Your task to perform on an android device: Search for sushi restaurants on Maps Image 0: 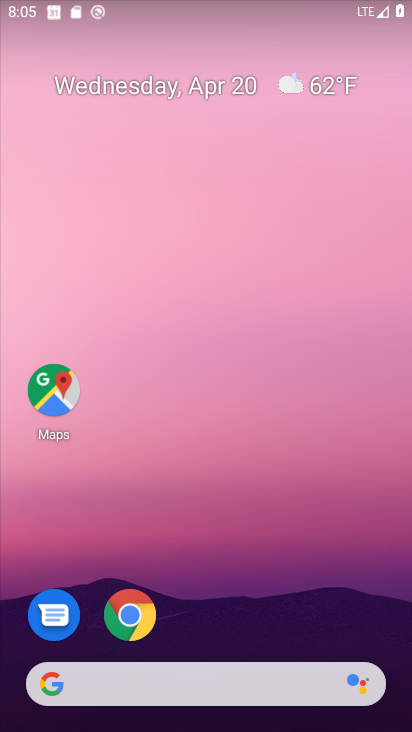
Step 0: click (57, 385)
Your task to perform on an android device: Search for sushi restaurants on Maps Image 1: 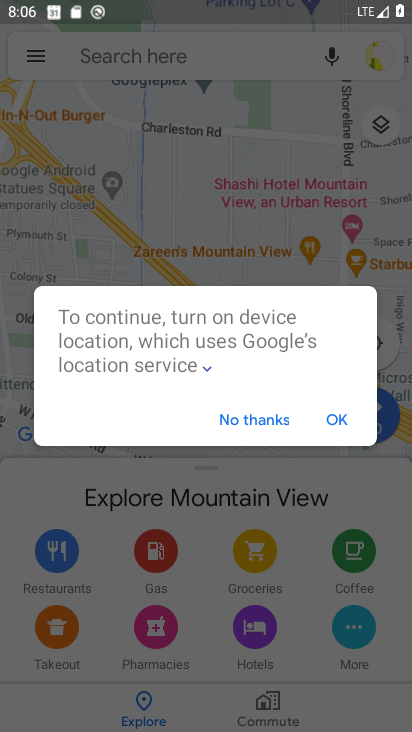
Step 1: click (246, 416)
Your task to perform on an android device: Search for sushi restaurants on Maps Image 2: 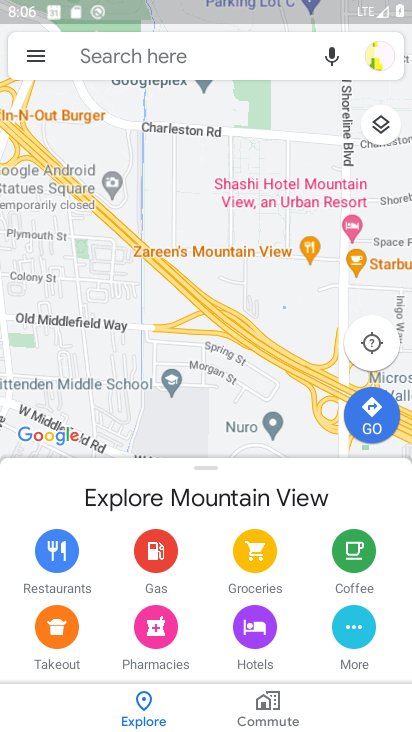
Step 2: click (160, 56)
Your task to perform on an android device: Search for sushi restaurants on Maps Image 3: 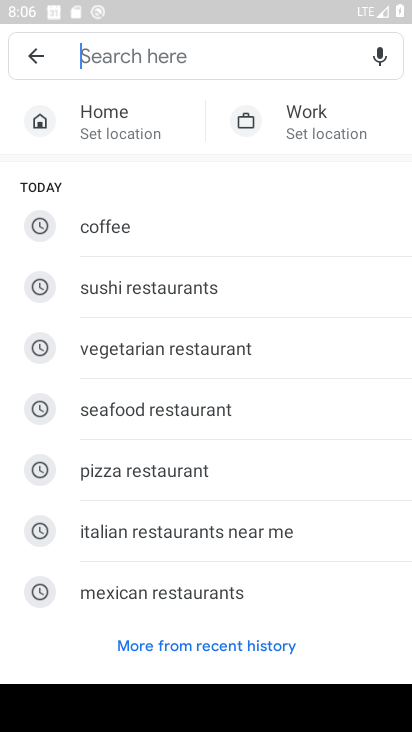
Step 3: type "sushi restaurant"
Your task to perform on an android device: Search for sushi restaurants on Maps Image 4: 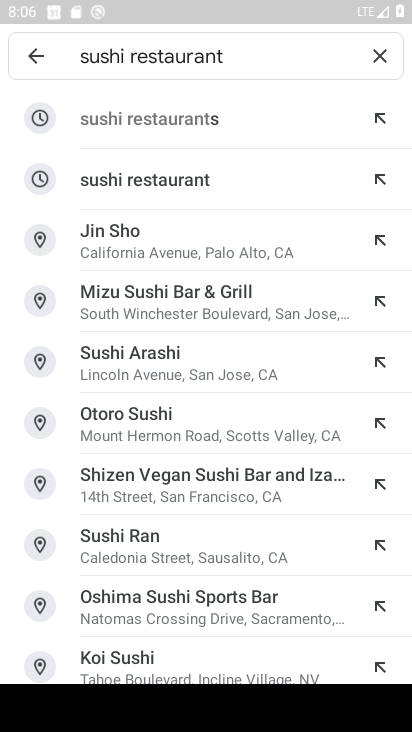
Step 4: click (198, 115)
Your task to perform on an android device: Search for sushi restaurants on Maps Image 5: 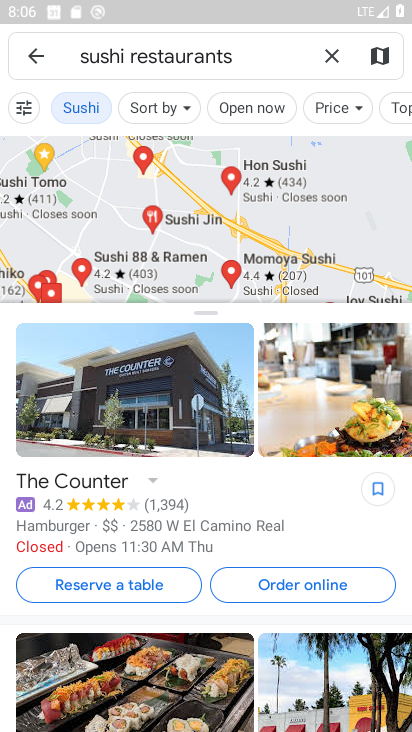
Step 5: task complete